Your task to perform on an android device: Open wifi settings Image 0: 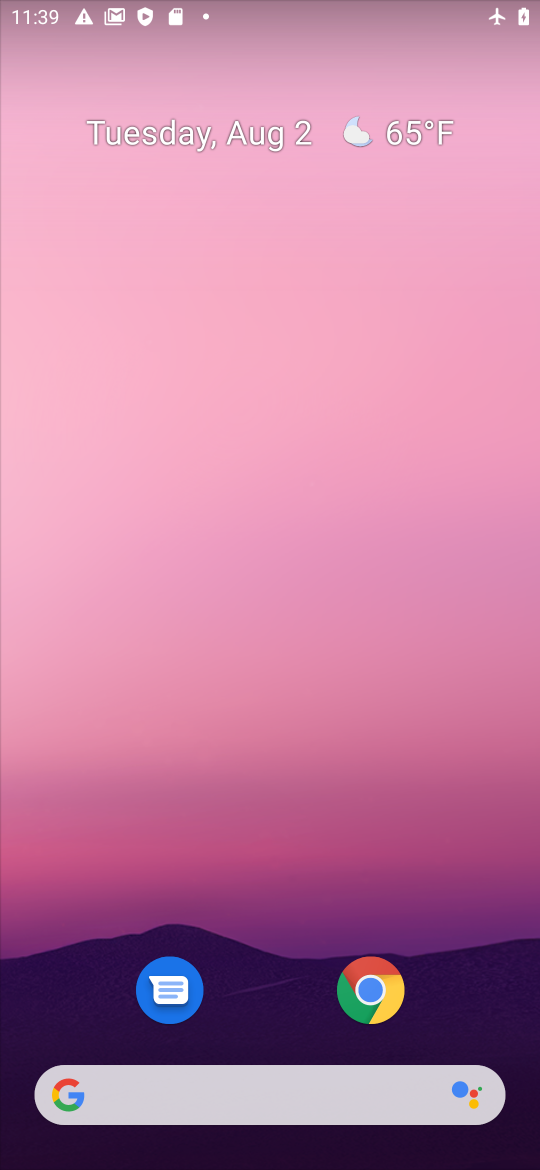
Step 0: drag from (264, 1020) to (253, 30)
Your task to perform on an android device: Open wifi settings Image 1: 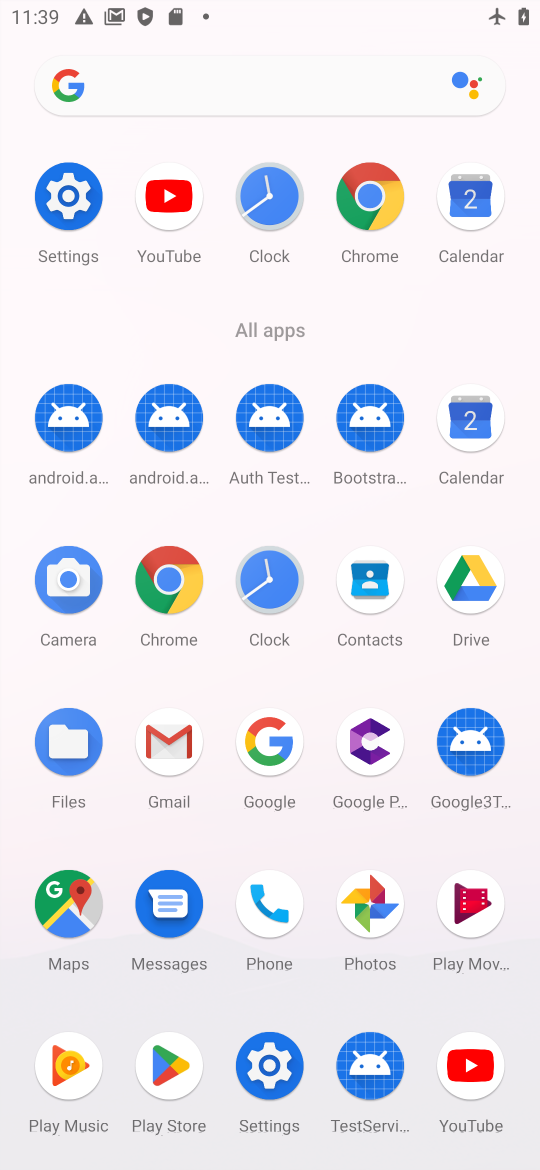
Step 1: click (69, 222)
Your task to perform on an android device: Open wifi settings Image 2: 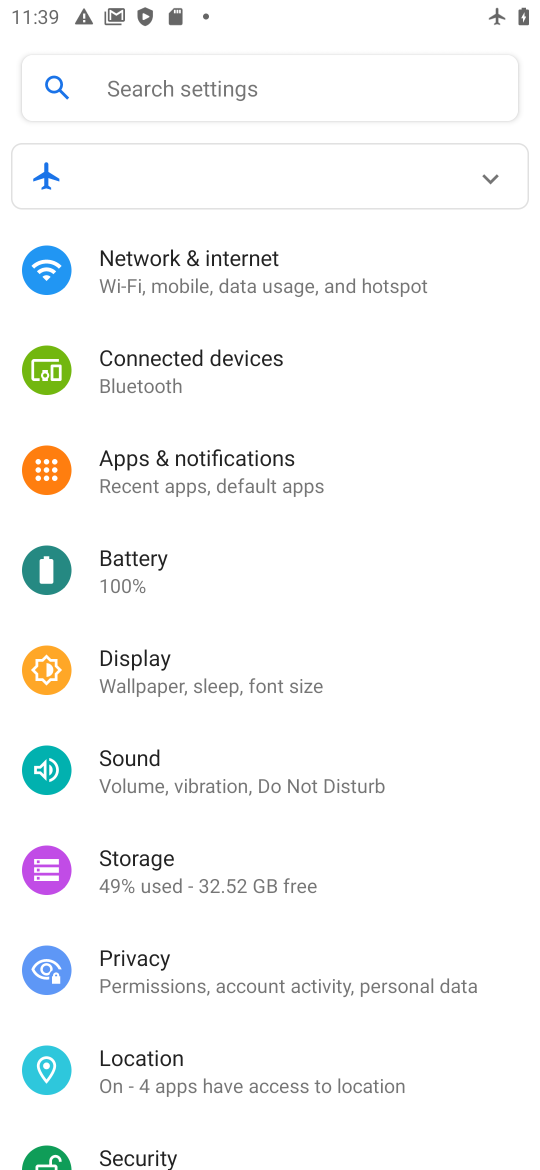
Step 2: click (213, 277)
Your task to perform on an android device: Open wifi settings Image 3: 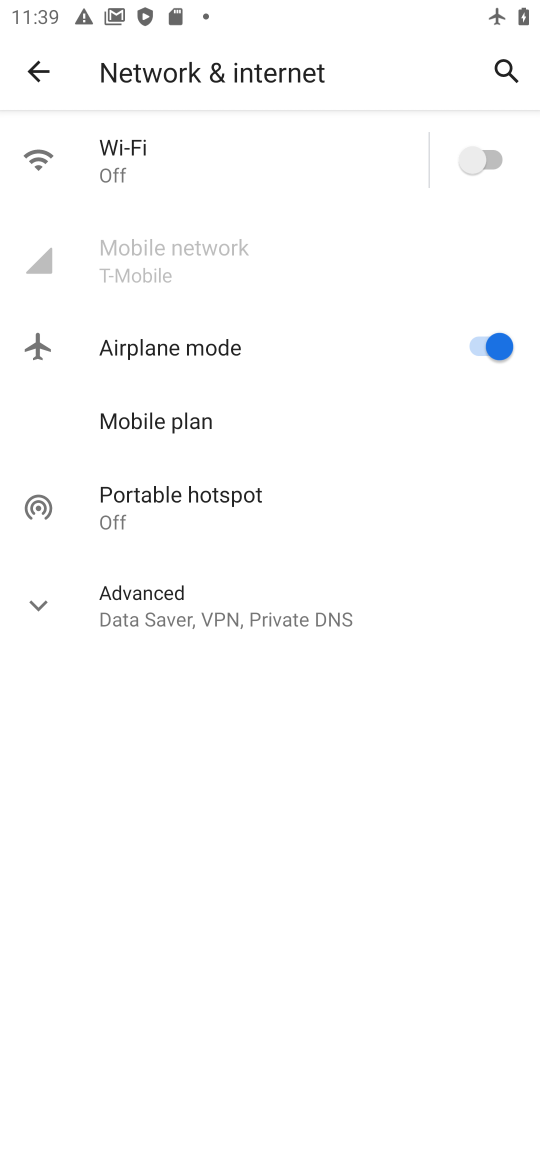
Step 3: click (175, 165)
Your task to perform on an android device: Open wifi settings Image 4: 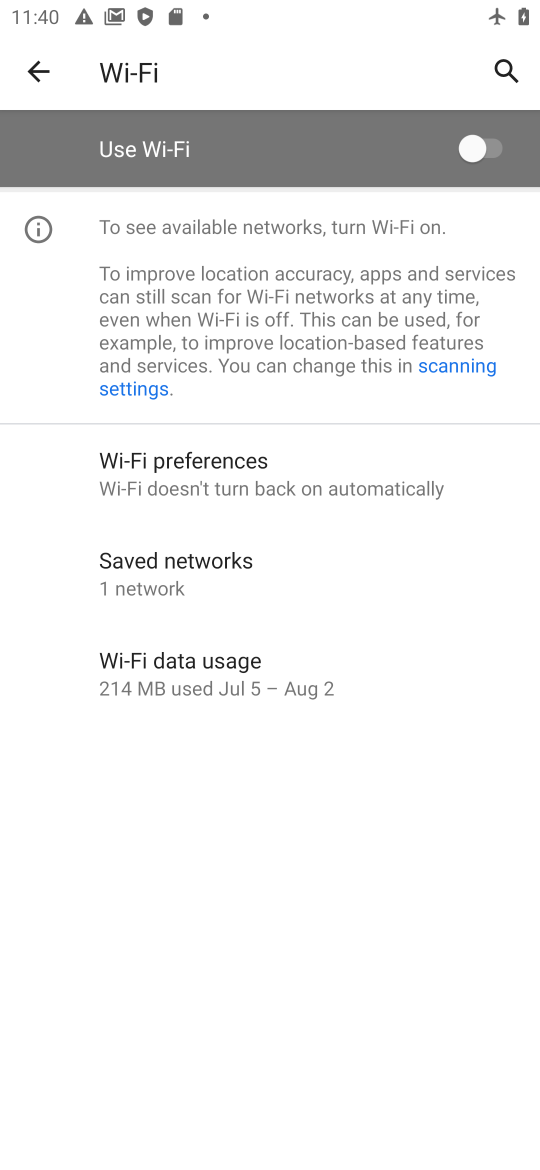
Step 4: task complete